Your task to perform on an android device: What's the weather going to be tomorrow? Image 0: 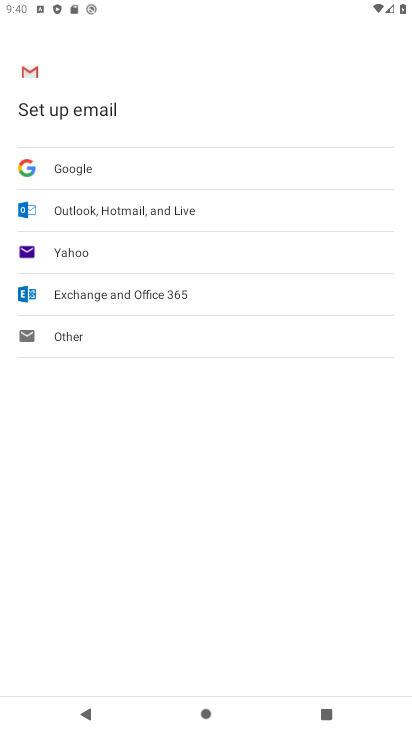
Step 0: press home button
Your task to perform on an android device: What's the weather going to be tomorrow? Image 1: 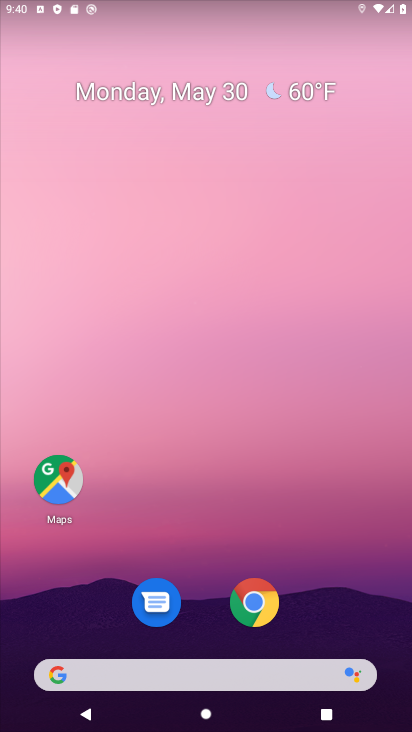
Step 1: drag from (200, 618) to (194, 208)
Your task to perform on an android device: What's the weather going to be tomorrow? Image 2: 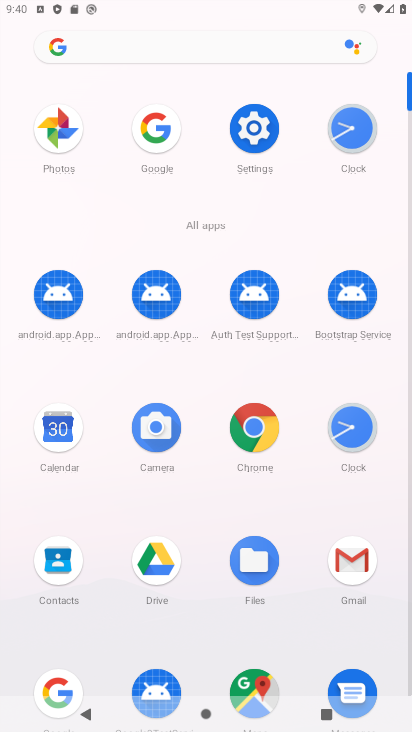
Step 2: click (71, 679)
Your task to perform on an android device: What's the weather going to be tomorrow? Image 3: 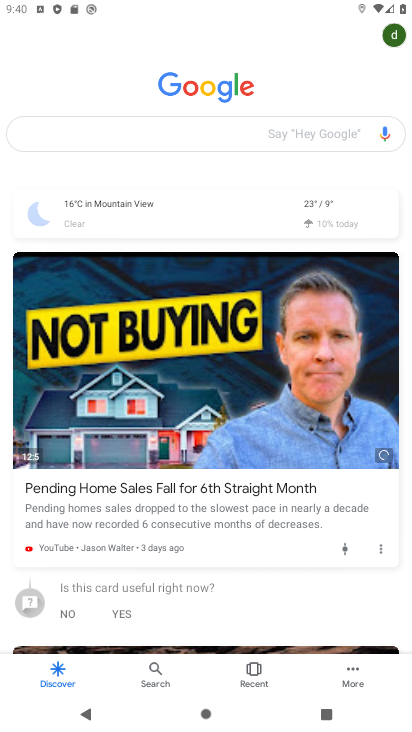
Step 3: click (165, 220)
Your task to perform on an android device: What's the weather going to be tomorrow? Image 4: 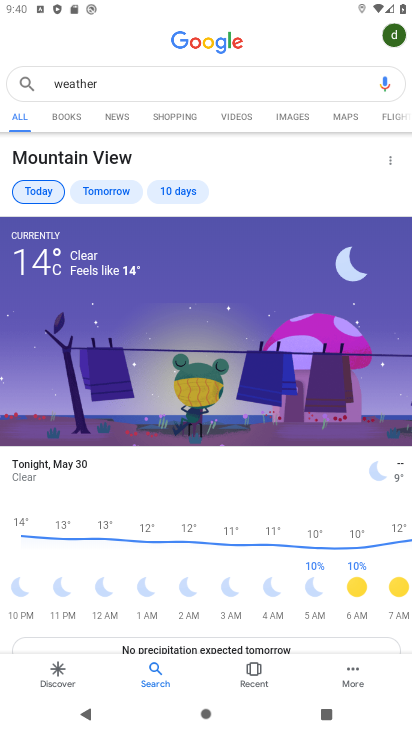
Step 4: click (84, 185)
Your task to perform on an android device: What's the weather going to be tomorrow? Image 5: 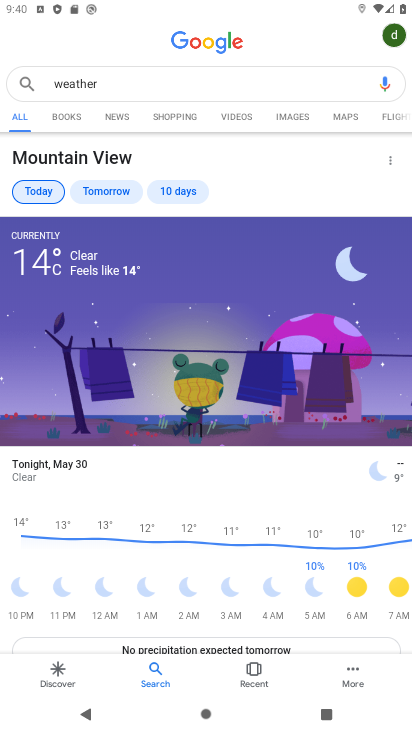
Step 5: click (97, 184)
Your task to perform on an android device: What's the weather going to be tomorrow? Image 6: 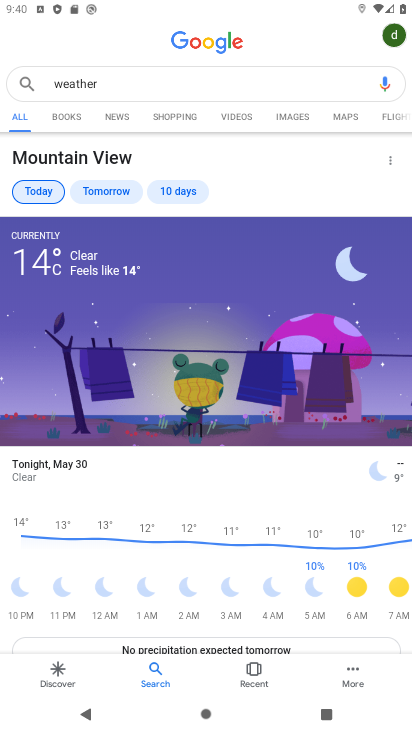
Step 6: click (97, 184)
Your task to perform on an android device: What's the weather going to be tomorrow? Image 7: 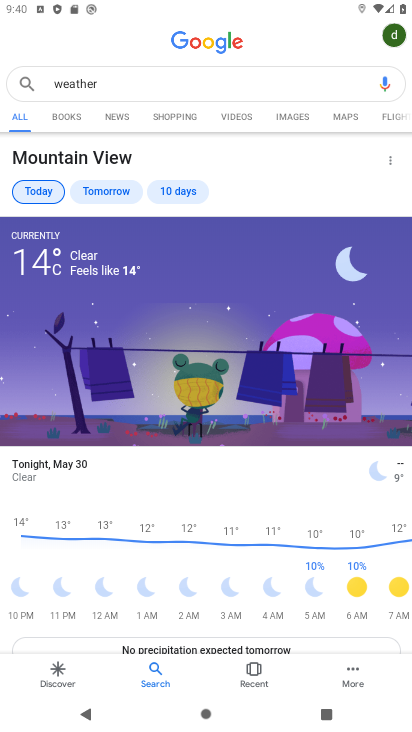
Step 7: click (97, 184)
Your task to perform on an android device: What's the weather going to be tomorrow? Image 8: 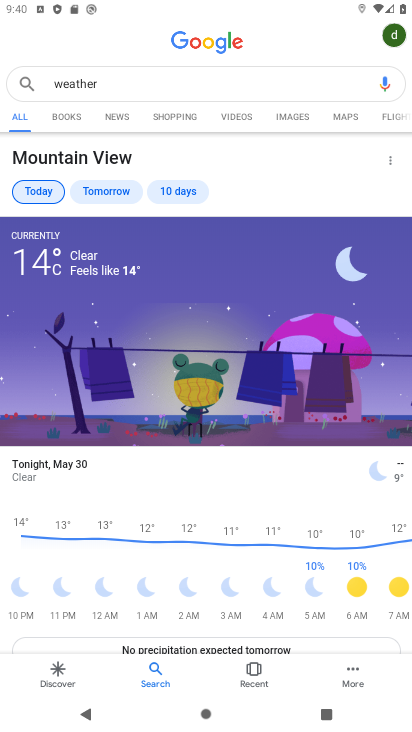
Step 8: click (97, 184)
Your task to perform on an android device: What's the weather going to be tomorrow? Image 9: 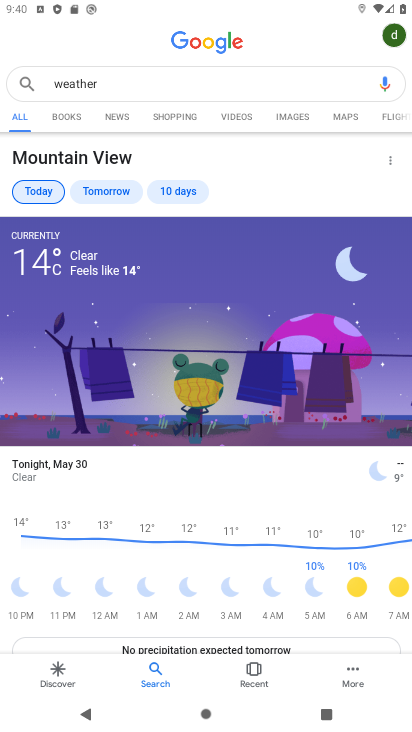
Step 9: click (97, 184)
Your task to perform on an android device: What's the weather going to be tomorrow? Image 10: 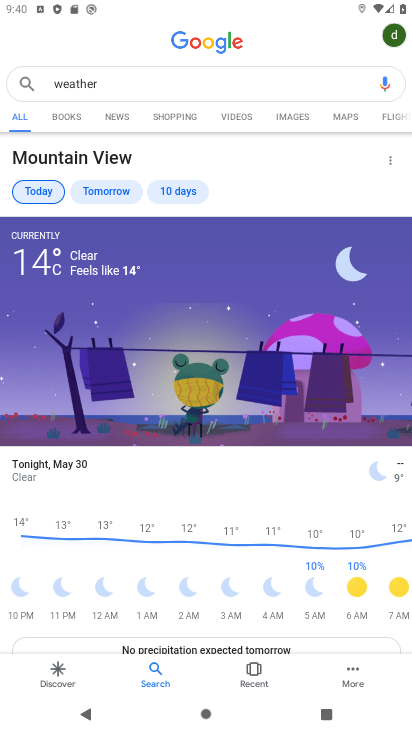
Step 10: click (89, 190)
Your task to perform on an android device: What's the weather going to be tomorrow? Image 11: 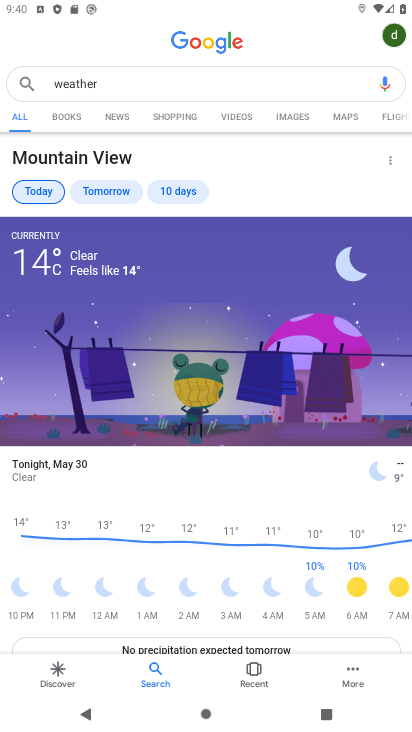
Step 11: click (84, 194)
Your task to perform on an android device: What's the weather going to be tomorrow? Image 12: 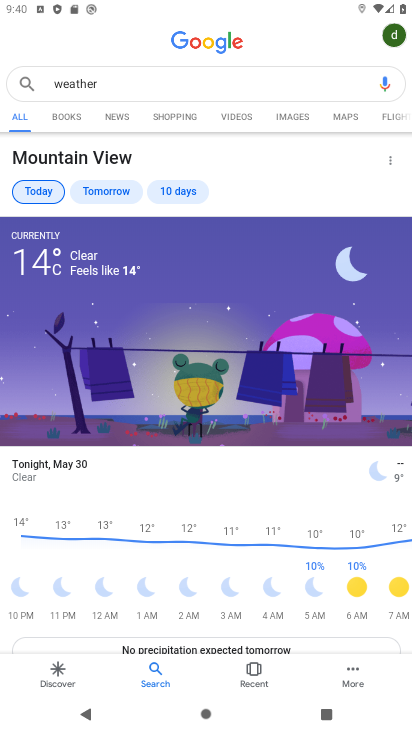
Step 12: click (85, 198)
Your task to perform on an android device: What's the weather going to be tomorrow? Image 13: 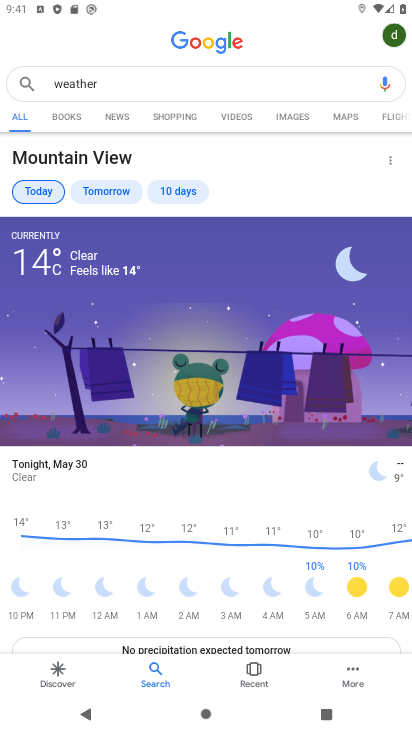
Step 13: click (85, 198)
Your task to perform on an android device: What's the weather going to be tomorrow? Image 14: 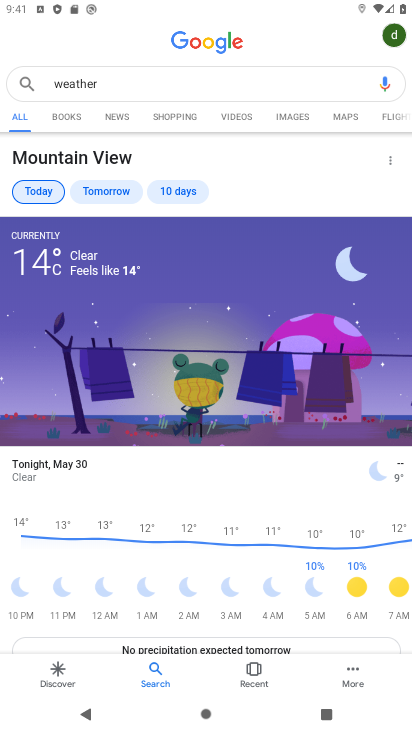
Step 14: click (126, 189)
Your task to perform on an android device: What's the weather going to be tomorrow? Image 15: 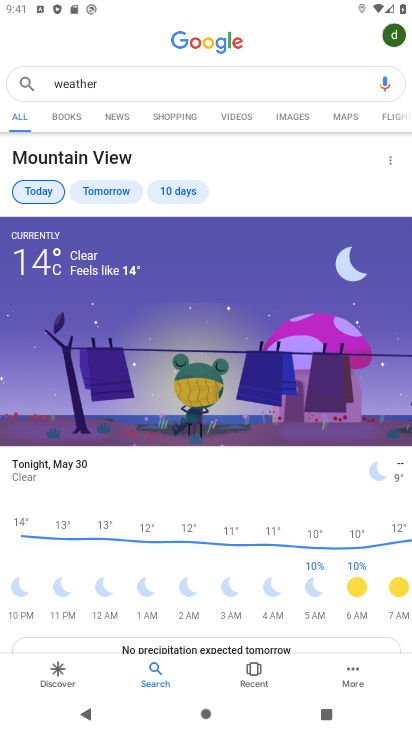
Step 15: click (126, 189)
Your task to perform on an android device: What's the weather going to be tomorrow? Image 16: 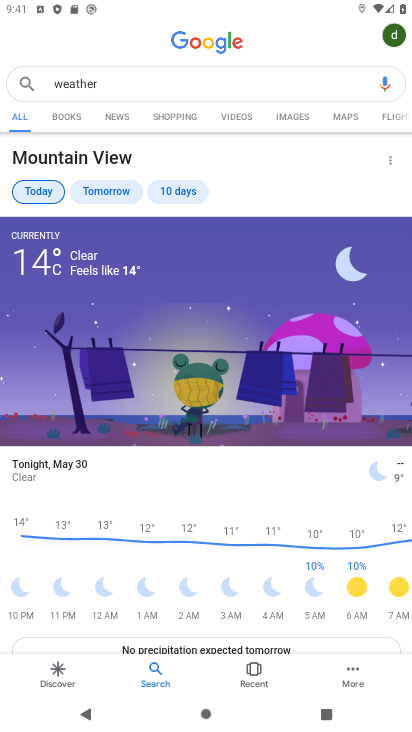
Step 16: click (122, 189)
Your task to perform on an android device: What's the weather going to be tomorrow? Image 17: 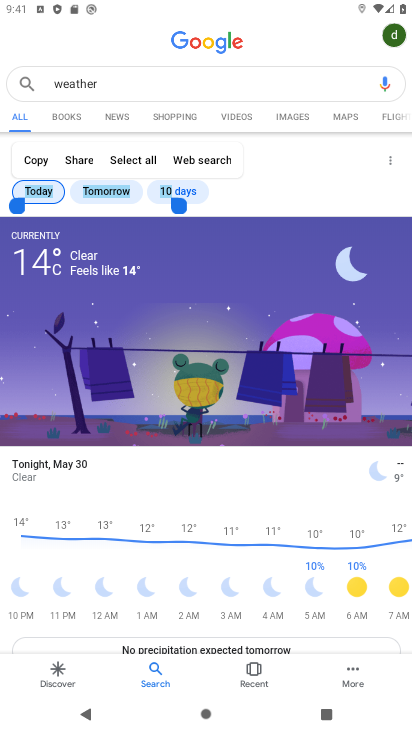
Step 17: click (112, 191)
Your task to perform on an android device: What's the weather going to be tomorrow? Image 18: 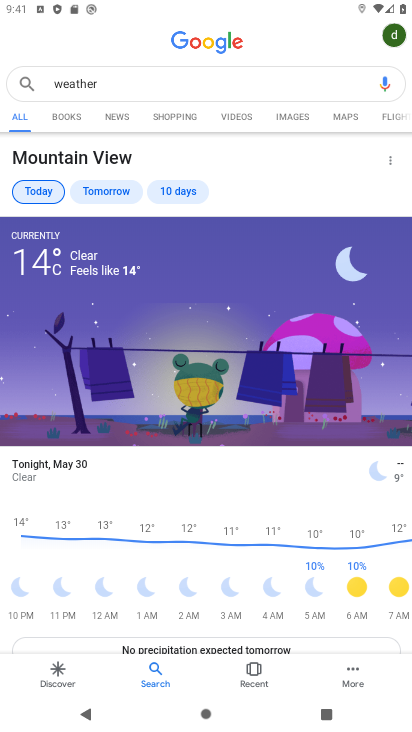
Step 18: click (91, 194)
Your task to perform on an android device: What's the weather going to be tomorrow? Image 19: 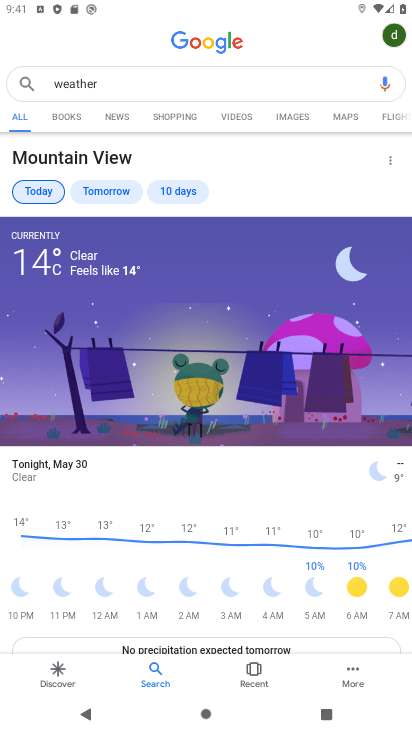
Step 19: click (91, 194)
Your task to perform on an android device: What's the weather going to be tomorrow? Image 20: 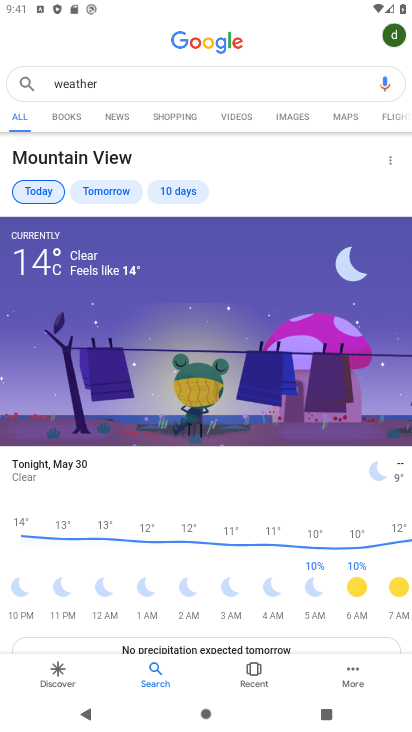
Step 20: task complete